Your task to perform on an android device: When is my next meeting? Image 0: 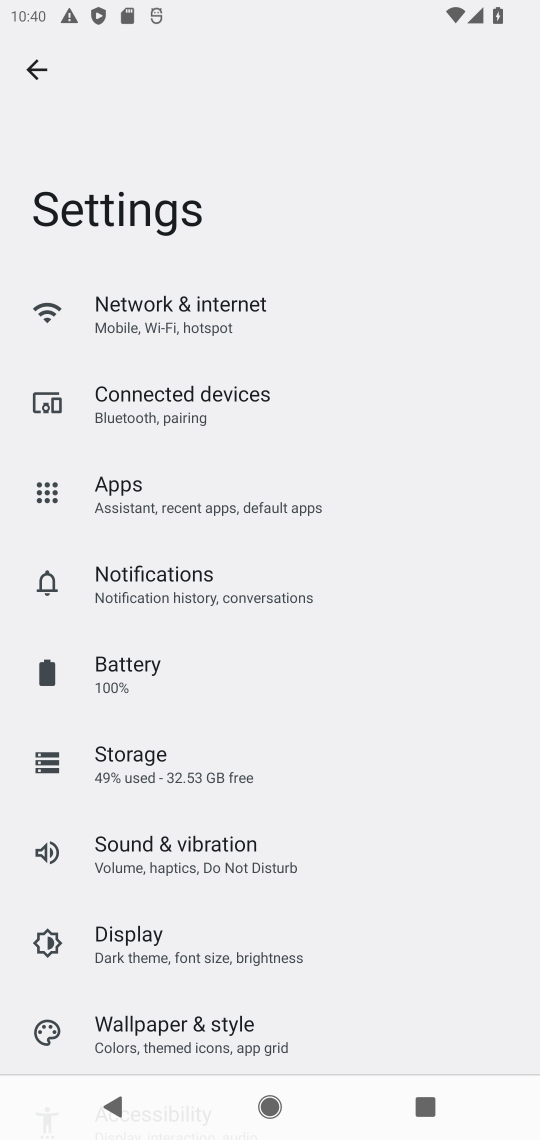
Step 0: press home button
Your task to perform on an android device: When is my next meeting? Image 1: 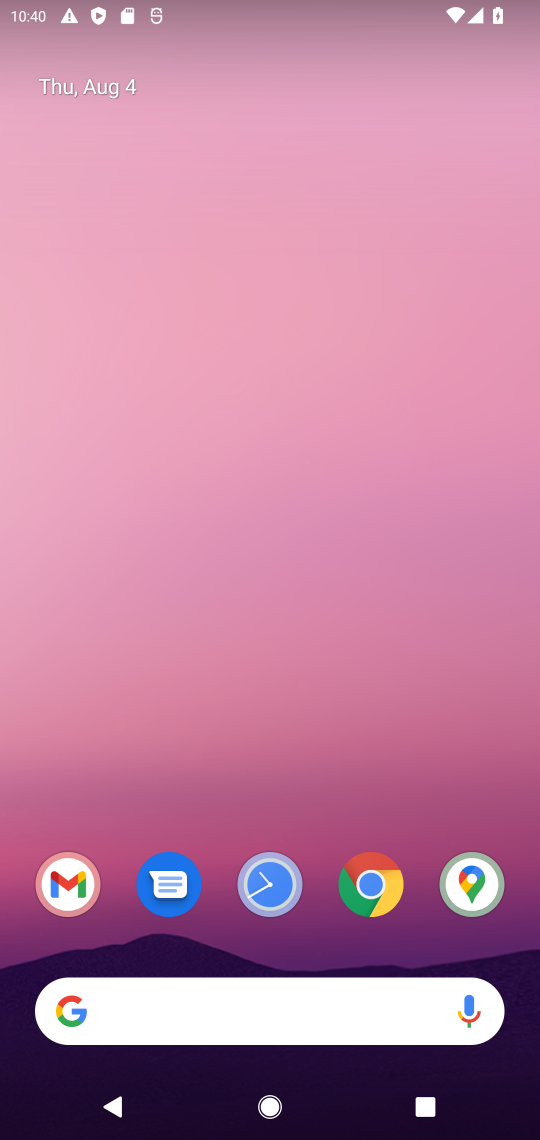
Step 1: drag from (237, 1023) to (388, 145)
Your task to perform on an android device: When is my next meeting? Image 2: 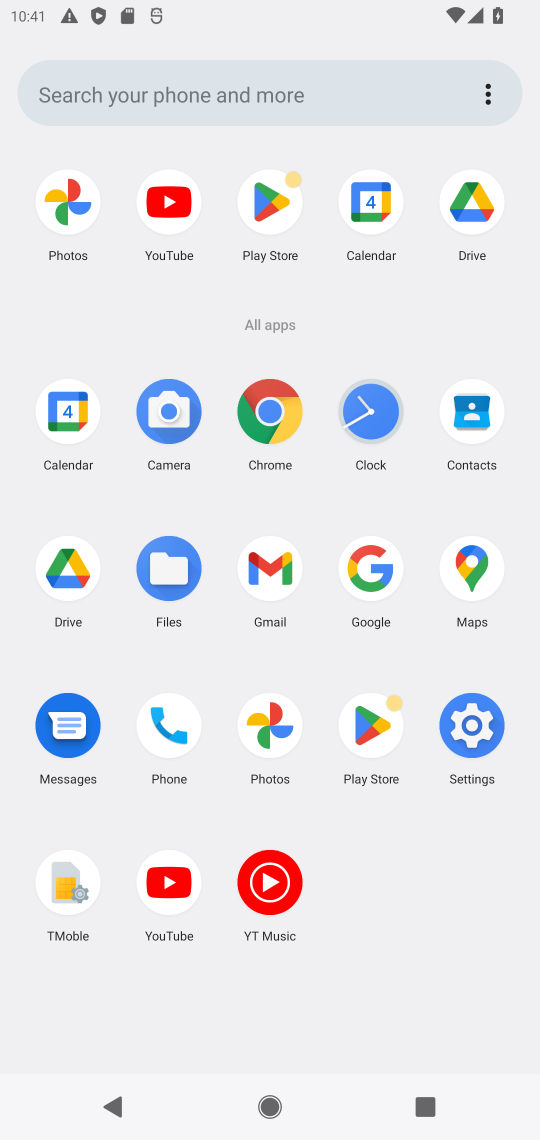
Step 2: click (78, 413)
Your task to perform on an android device: When is my next meeting? Image 3: 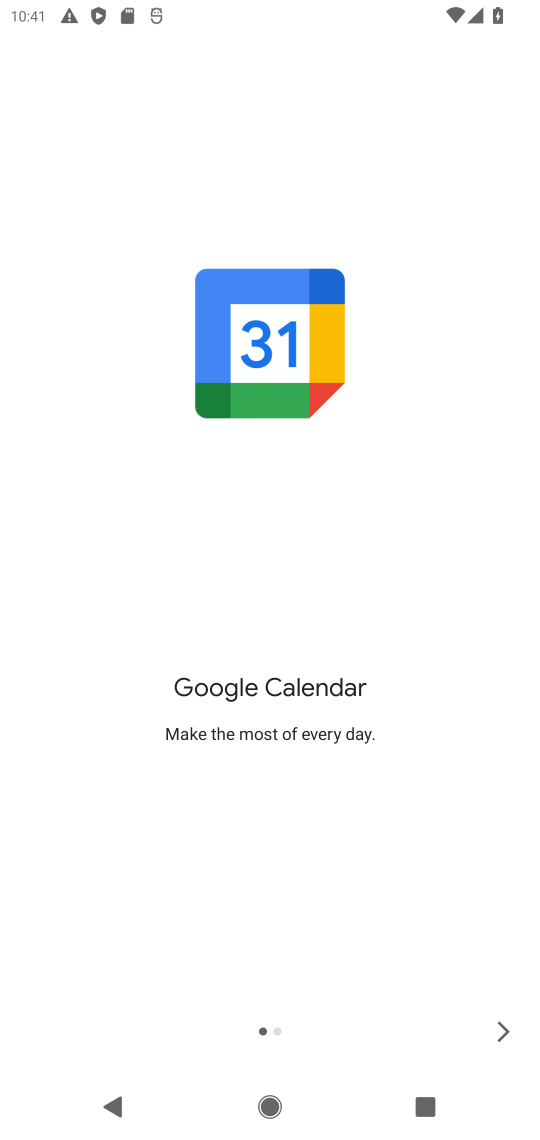
Step 3: click (493, 1037)
Your task to perform on an android device: When is my next meeting? Image 4: 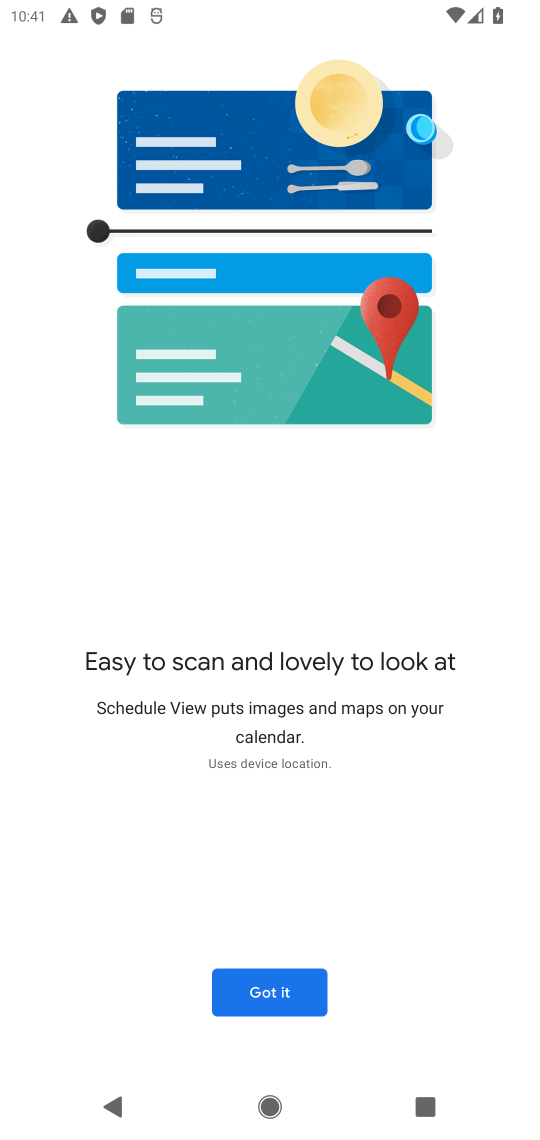
Step 4: click (288, 990)
Your task to perform on an android device: When is my next meeting? Image 5: 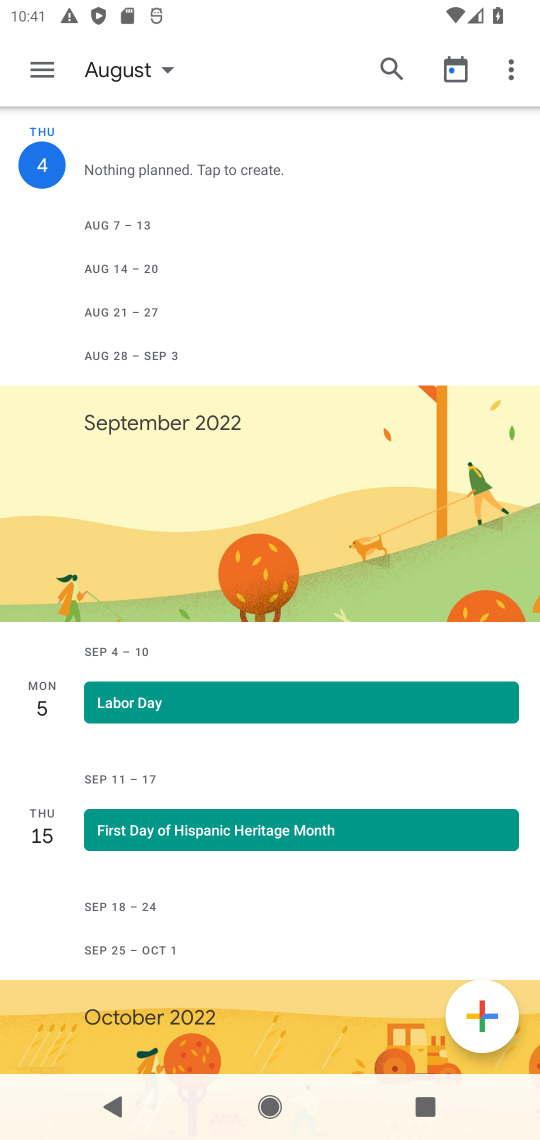
Step 5: click (45, 78)
Your task to perform on an android device: When is my next meeting? Image 6: 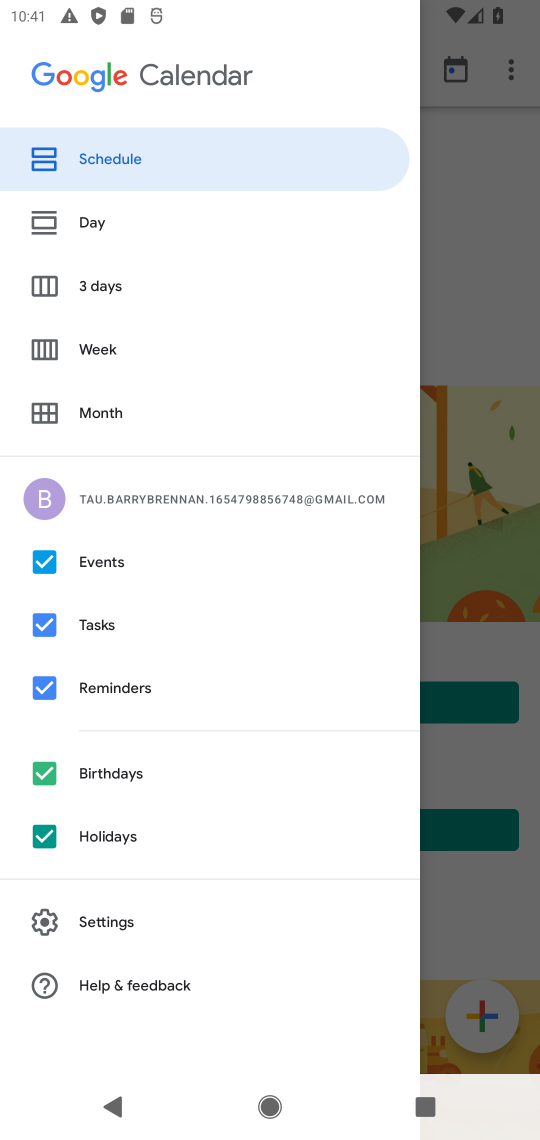
Step 6: click (94, 165)
Your task to perform on an android device: When is my next meeting? Image 7: 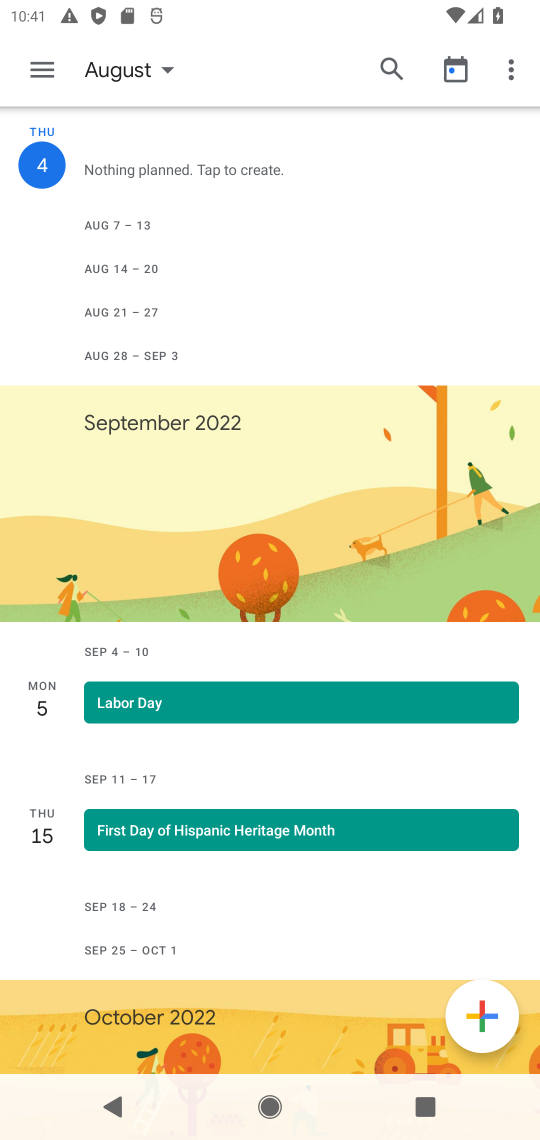
Step 7: task complete